Your task to perform on an android device: Search for Mexican restaurants on Maps Image 0: 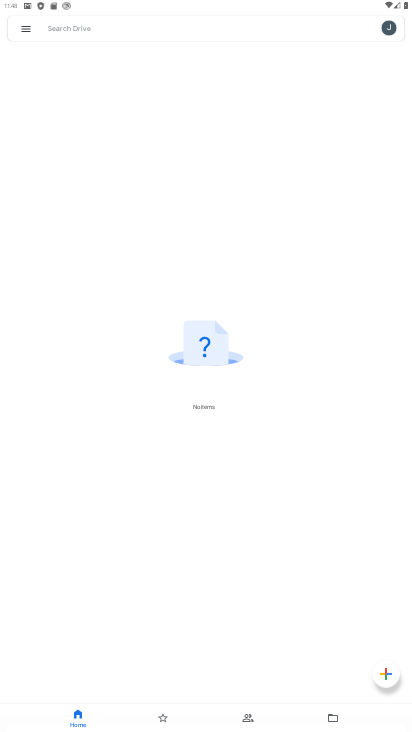
Step 0: press home button
Your task to perform on an android device: Search for Mexican restaurants on Maps Image 1: 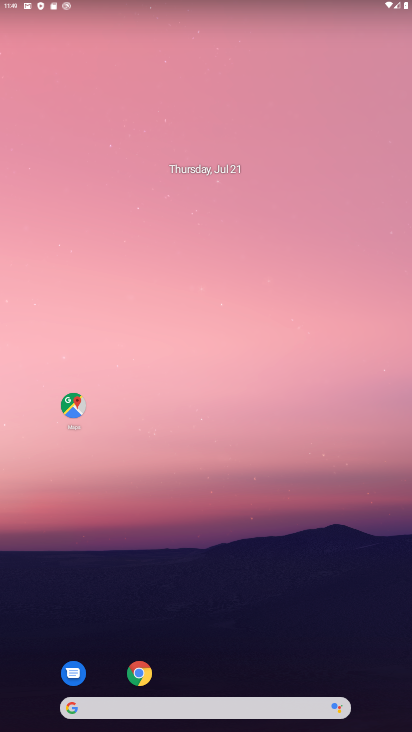
Step 1: click (66, 407)
Your task to perform on an android device: Search for Mexican restaurants on Maps Image 2: 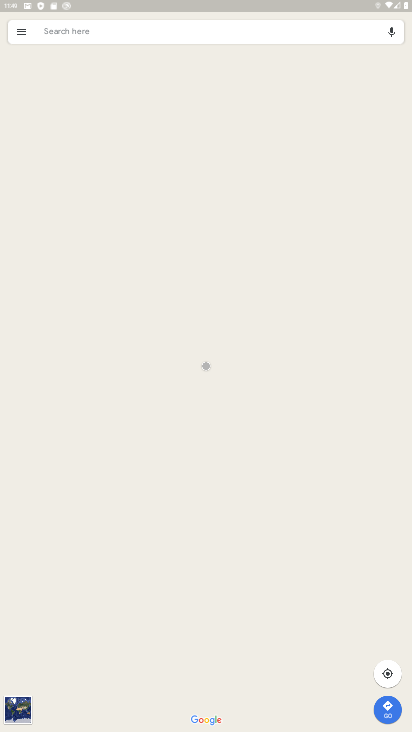
Step 2: click (161, 28)
Your task to perform on an android device: Search for Mexican restaurants on Maps Image 3: 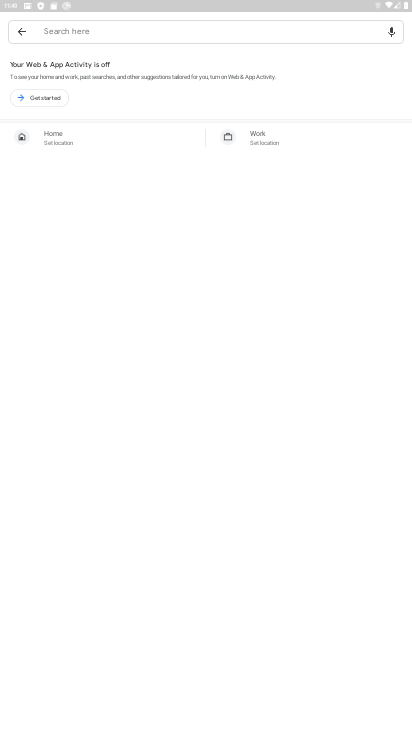
Step 3: type "Mexican restaurants "
Your task to perform on an android device: Search for Mexican restaurants on Maps Image 4: 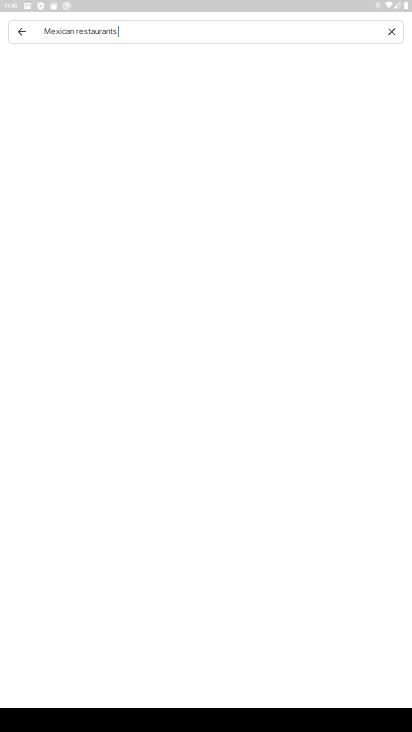
Step 4: task complete